Your task to perform on an android device: turn off picture-in-picture Image 0: 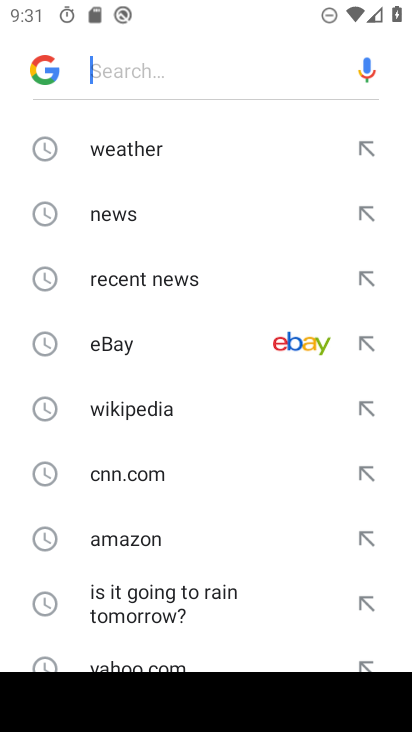
Step 0: press home button
Your task to perform on an android device: turn off picture-in-picture Image 1: 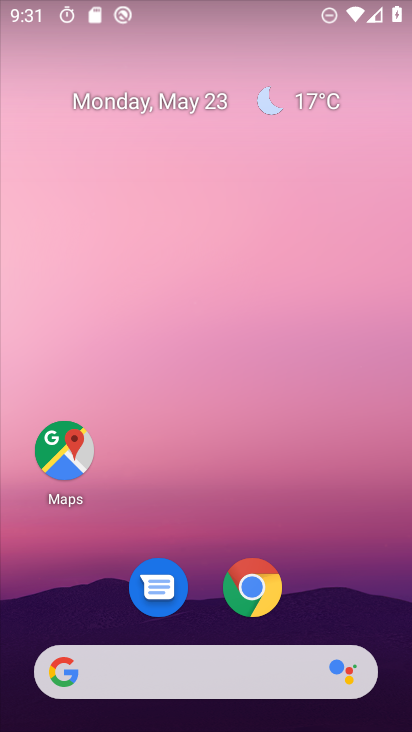
Step 1: drag from (185, 520) to (303, 26)
Your task to perform on an android device: turn off picture-in-picture Image 2: 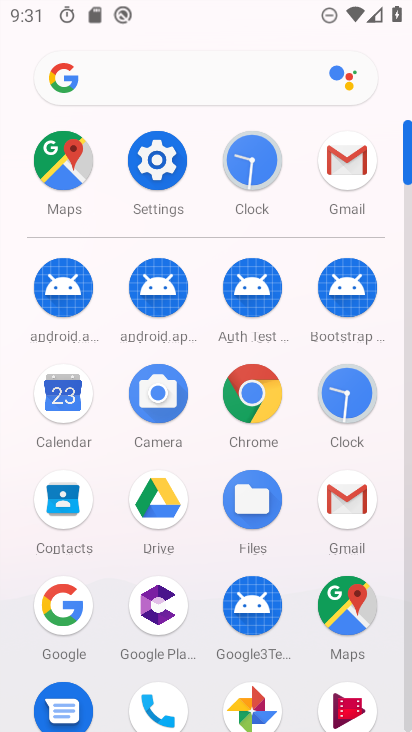
Step 2: click (163, 153)
Your task to perform on an android device: turn off picture-in-picture Image 3: 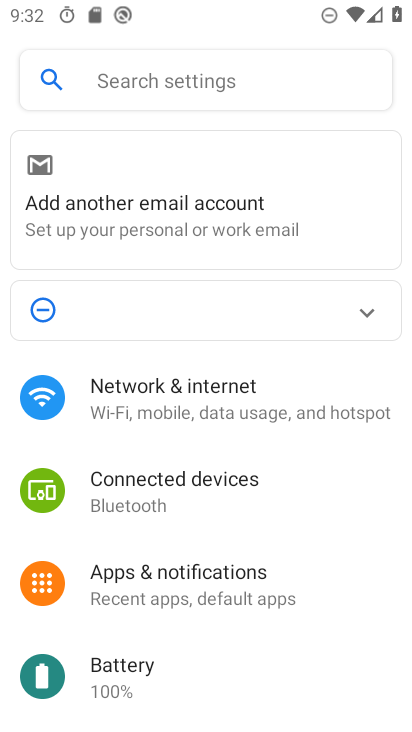
Step 3: click (193, 596)
Your task to perform on an android device: turn off picture-in-picture Image 4: 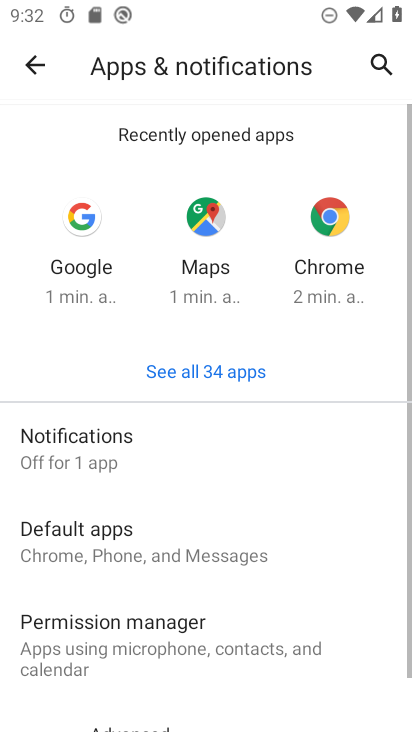
Step 4: drag from (157, 632) to (263, 60)
Your task to perform on an android device: turn off picture-in-picture Image 5: 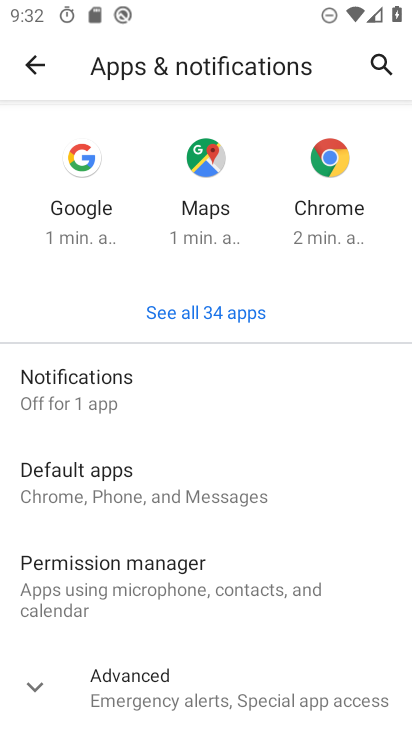
Step 5: click (186, 701)
Your task to perform on an android device: turn off picture-in-picture Image 6: 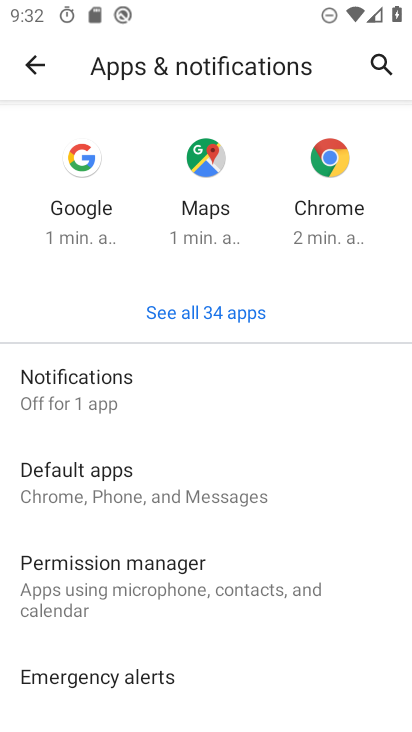
Step 6: drag from (155, 602) to (283, 64)
Your task to perform on an android device: turn off picture-in-picture Image 7: 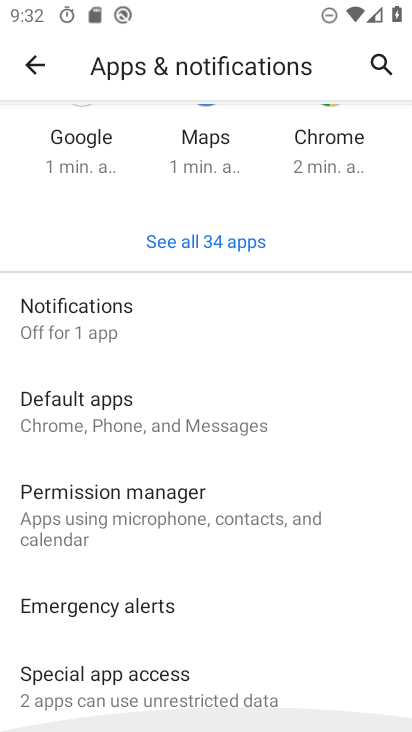
Step 7: click (121, 688)
Your task to perform on an android device: turn off picture-in-picture Image 8: 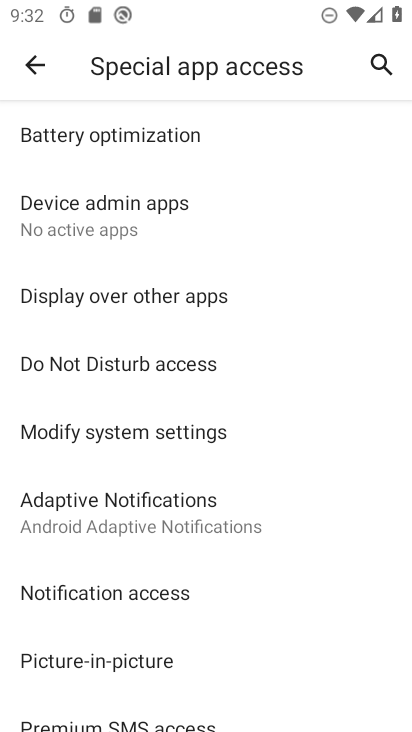
Step 8: click (85, 655)
Your task to perform on an android device: turn off picture-in-picture Image 9: 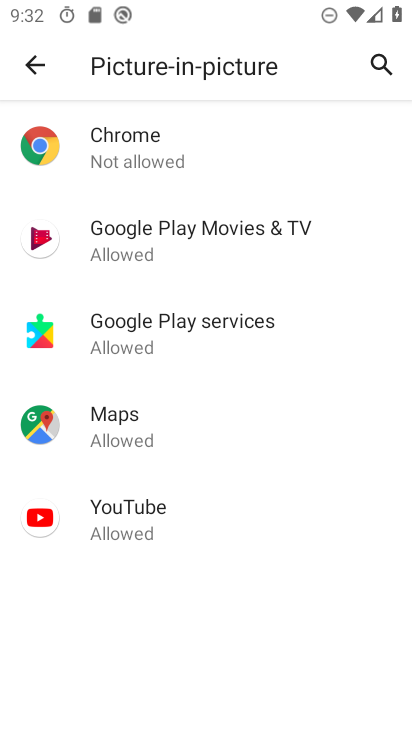
Step 9: click (101, 148)
Your task to perform on an android device: turn off picture-in-picture Image 10: 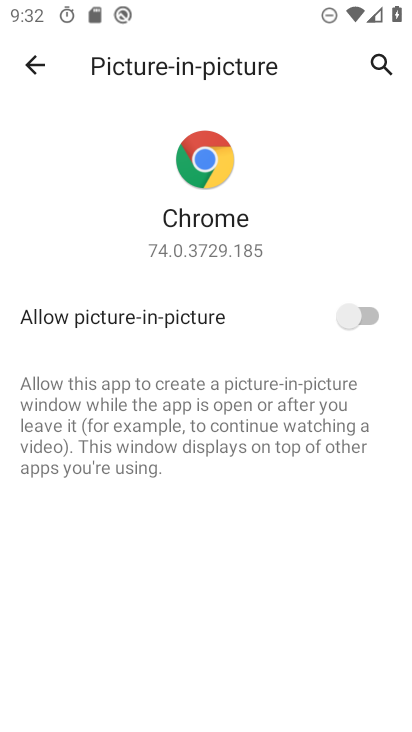
Step 10: click (32, 53)
Your task to perform on an android device: turn off picture-in-picture Image 11: 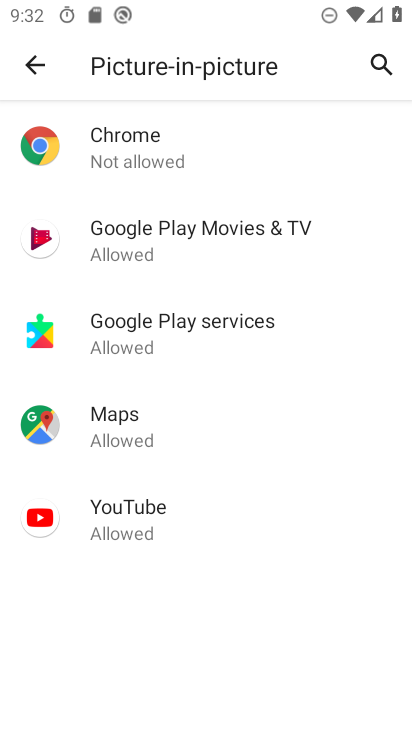
Step 11: click (175, 232)
Your task to perform on an android device: turn off picture-in-picture Image 12: 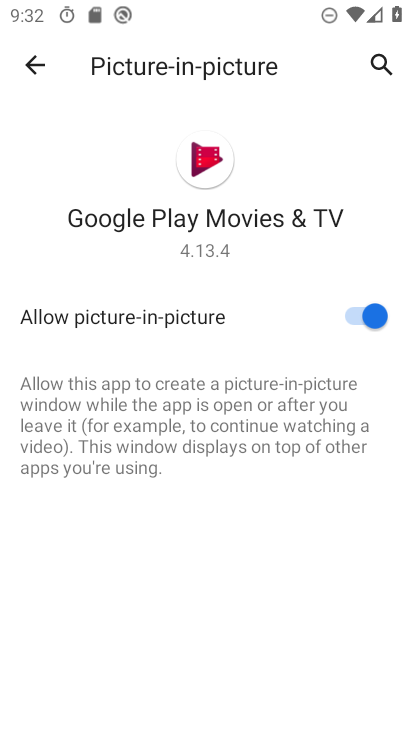
Step 12: click (370, 306)
Your task to perform on an android device: turn off picture-in-picture Image 13: 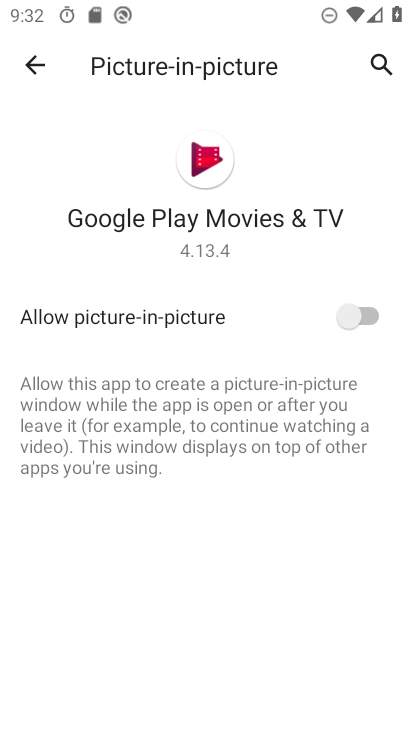
Step 13: task complete